Your task to perform on an android device: Go to Amazon Image 0: 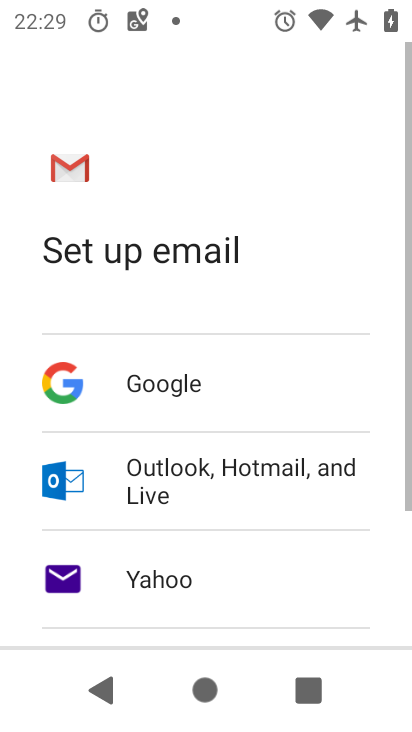
Step 0: press home button
Your task to perform on an android device: Go to Amazon Image 1: 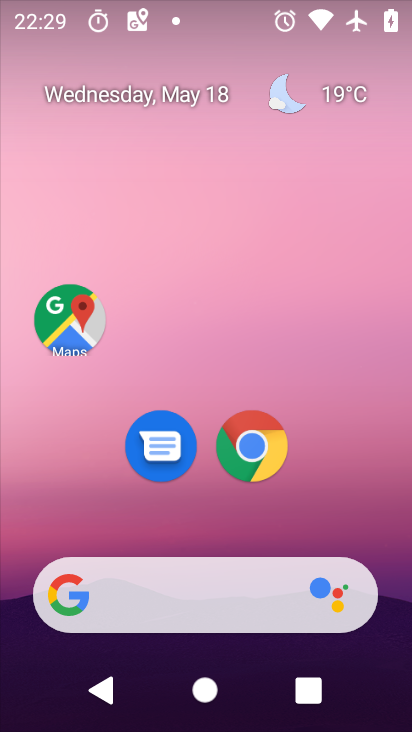
Step 1: click (245, 445)
Your task to perform on an android device: Go to Amazon Image 2: 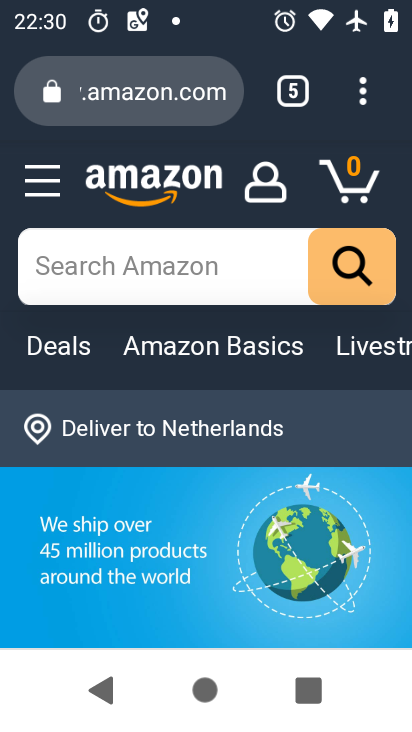
Step 2: task complete